Your task to perform on an android device: What's the weather? Image 0: 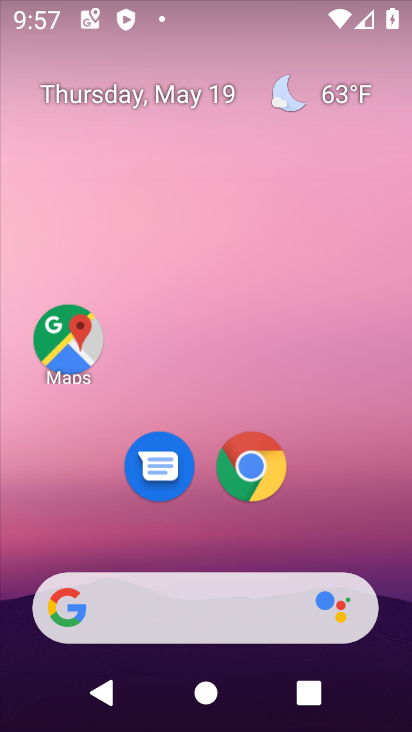
Step 0: drag from (398, 608) to (335, 15)
Your task to perform on an android device: What's the weather? Image 1: 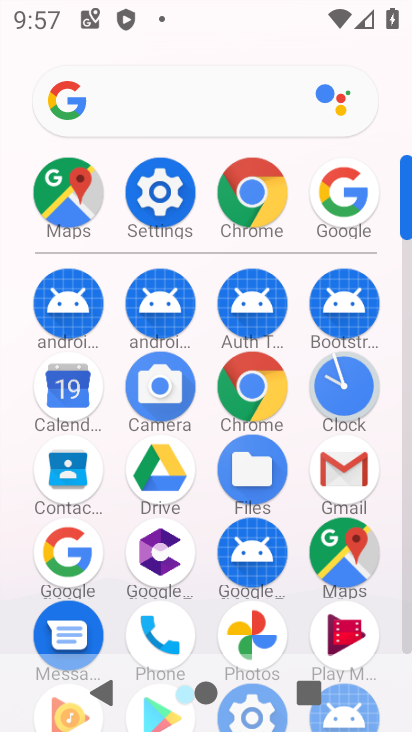
Step 1: click (71, 563)
Your task to perform on an android device: What's the weather? Image 2: 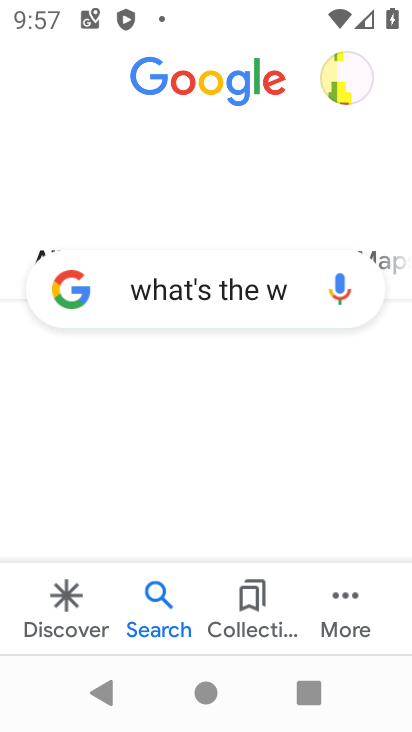
Step 2: press back button
Your task to perform on an android device: What's the weather? Image 3: 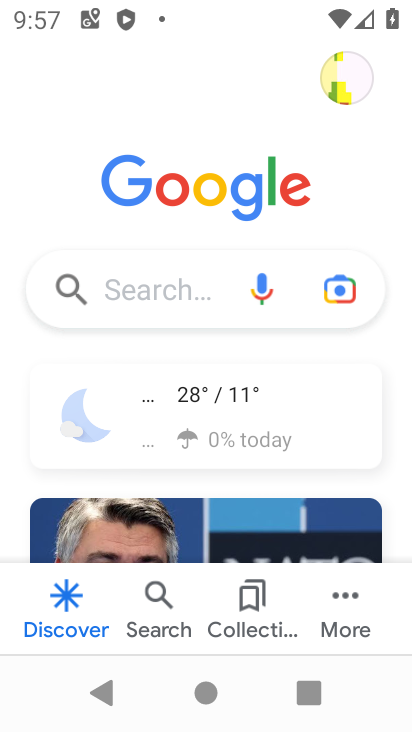
Step 3: click (146, 287)
Your task to perform on an android device: What's the weather? Image 4: 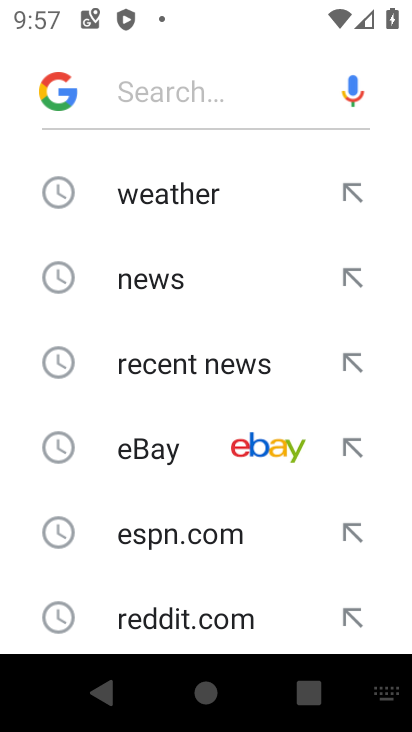
Step 4: click (194, 219)
Your task to perform on an android device: What's the weather? Image 5: 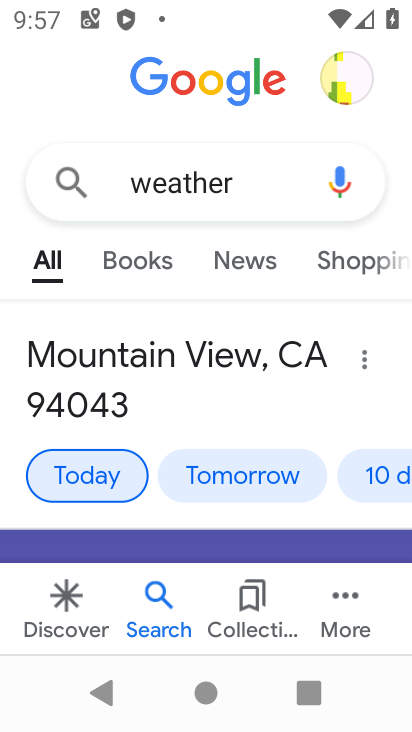
Step 5: task complete